Your task to perform on an android device: Open the phone app and click the voicemail tab. Image 0: 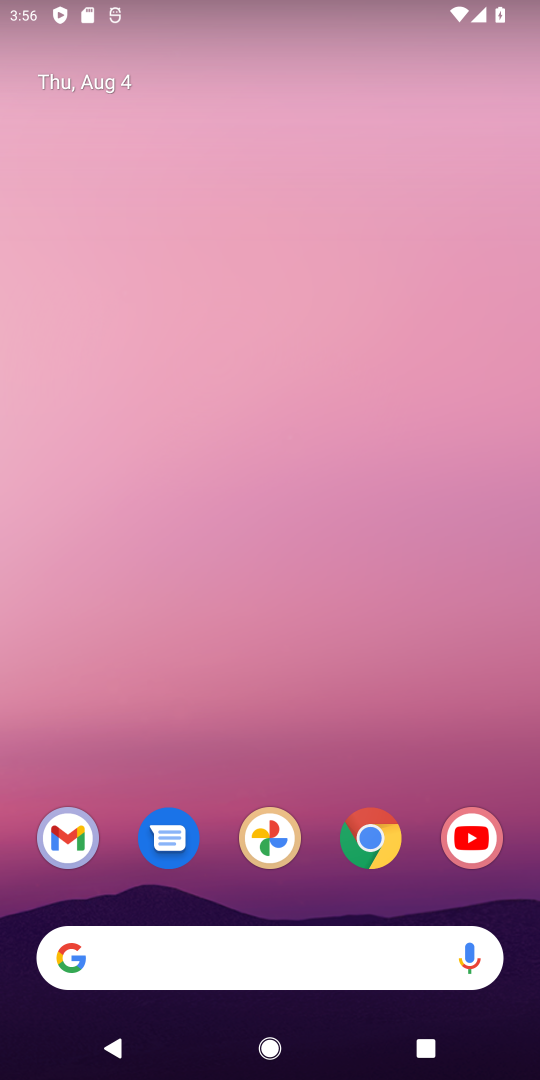
Step 0: drag from (386, 765) to (352, 250)
Your task to perform on an android device: Open the phone app and click the voicemail tab. Image 1: 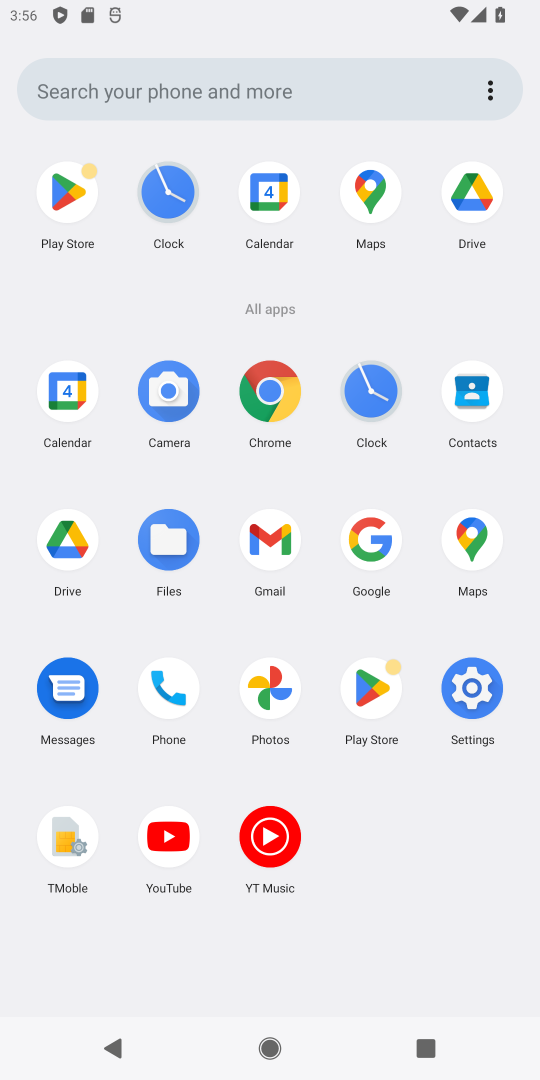
Step 1: click (151, 689)
Your task to perform on an android device: Open the phone app and click the voicemail tab. Image 2: 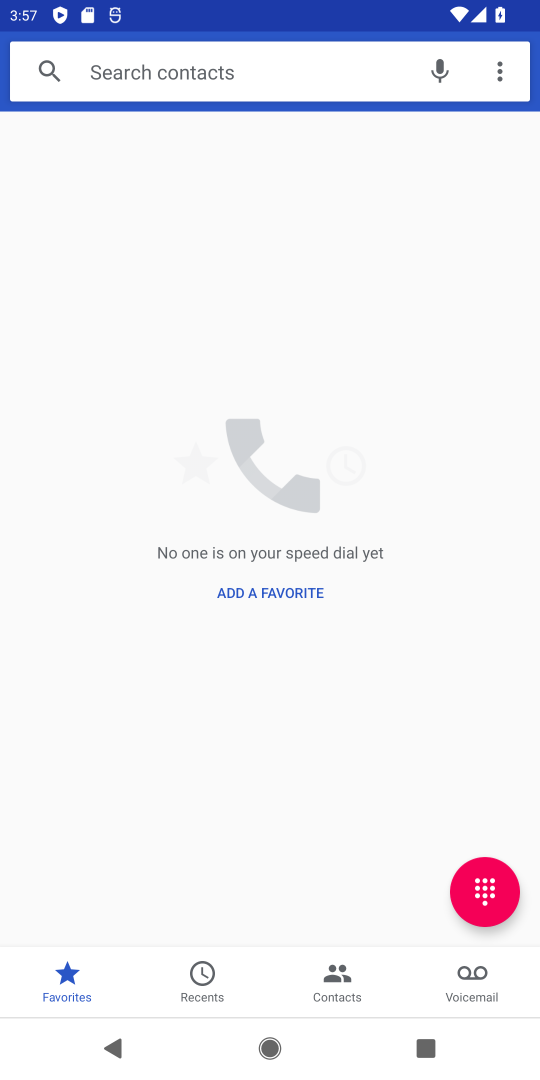
Step 2: click (471, 974)
Your task to perform on an android device: Open the phone app and click the voicemail tab. Image 3: 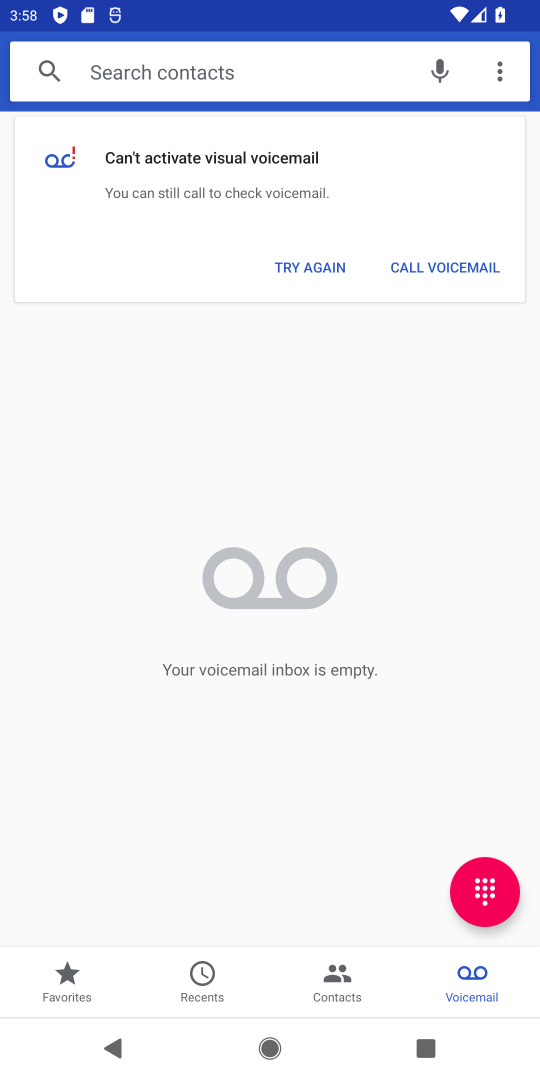
Step 3: task complete